Your task to perform on an android device: turn smart compose on in the gmail app Image 0: 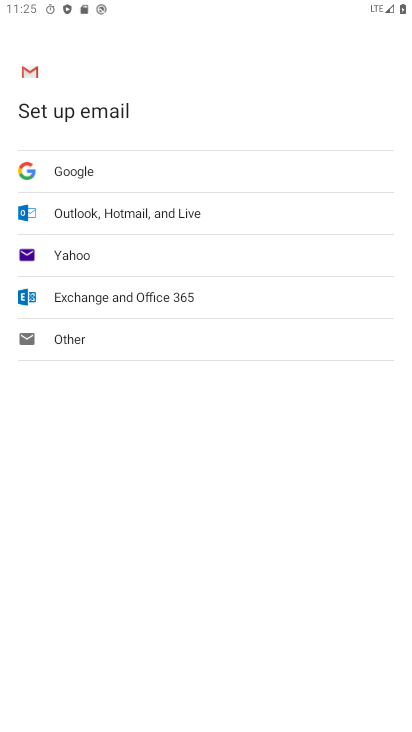
Step 0: press home button
Your task to perform on an android device: turn smart compose on in the gmail app Image 1: 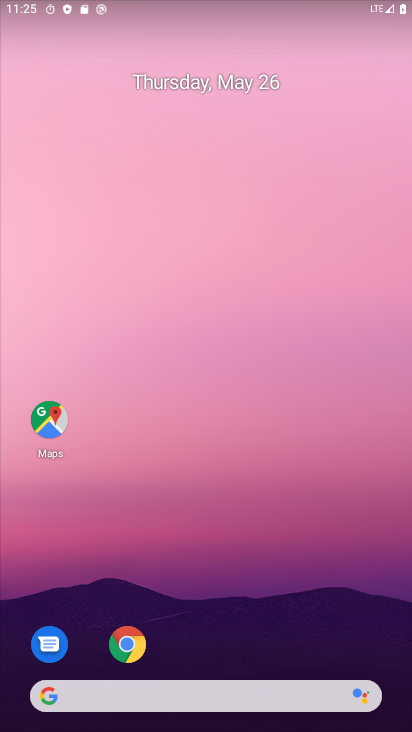
Step 1: drag from (134, 728) to (137, 67)
Your task to perform on an android device: turn smart compose on in the gmail app Image 2: 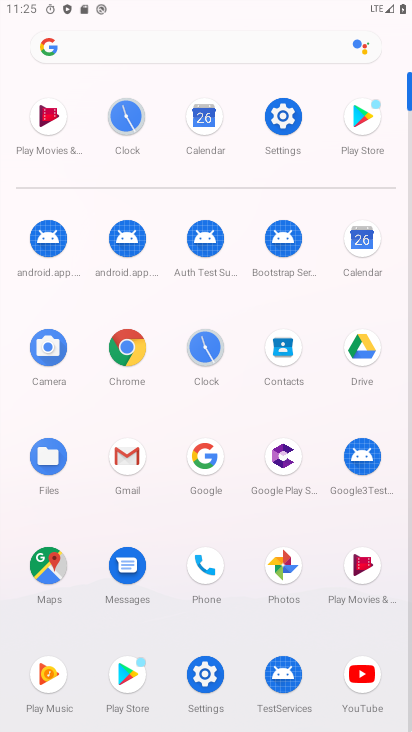
Step 2: click (129, 466)
Your task to perform on an android device: turn smart compose on in the gmail app Image 3: 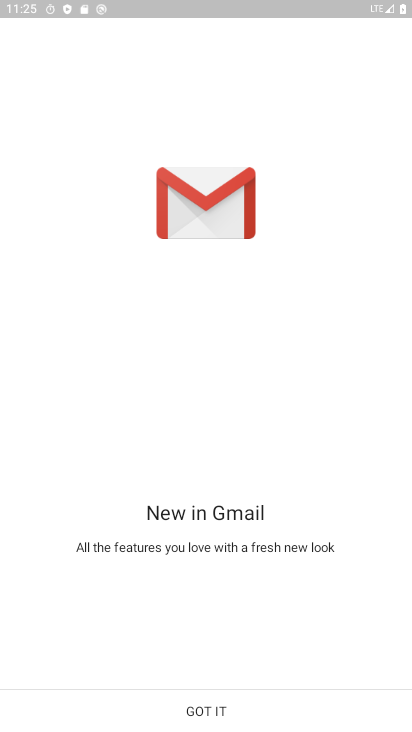
Step 3: click (203, 713)
Your task to perform on an android device: turn smart compose on in the gmail app Image 4: 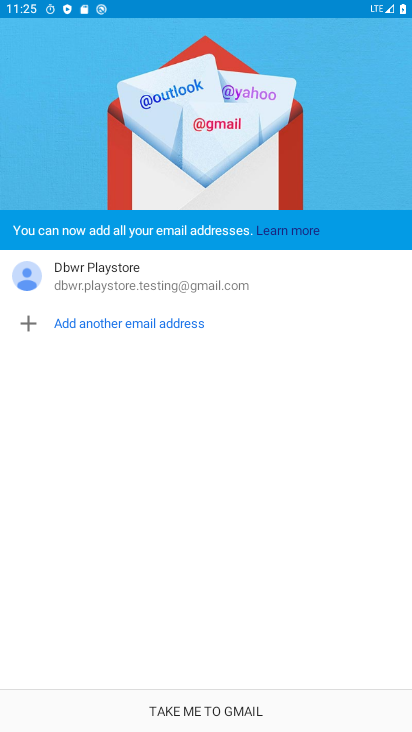
Step 4: click (207, 712)
Your task to perform on an android device: turn smart compose on in the gmail app Image 5: 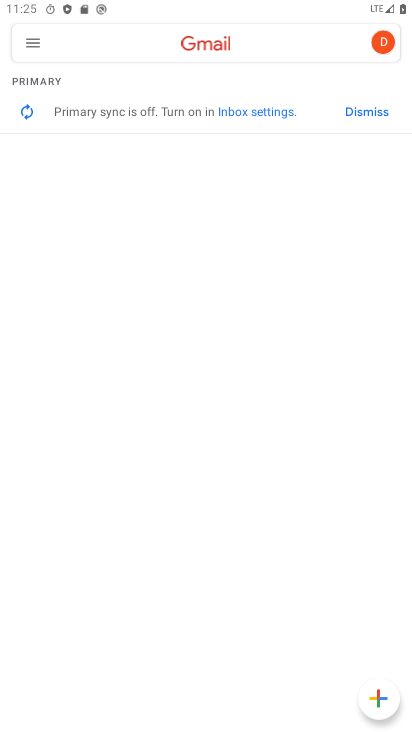
Step 5: click (26, 48)
Your task to perform on an android device: turn smart compose on in the gmail app Image 6: 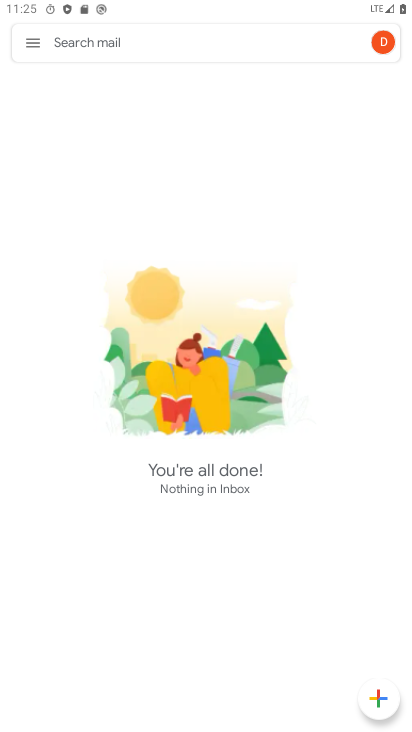
Step 6: click (33, 49)
Your task to perform on an android device: turn smart compose on in the gmail app Image 7: 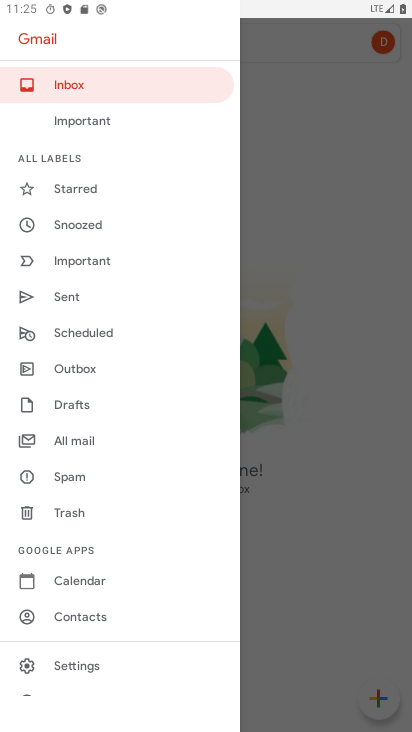
Step 7: click (64, 667)
Your task to perform on an android device: turn smart compose on in the gmail app Image 8: 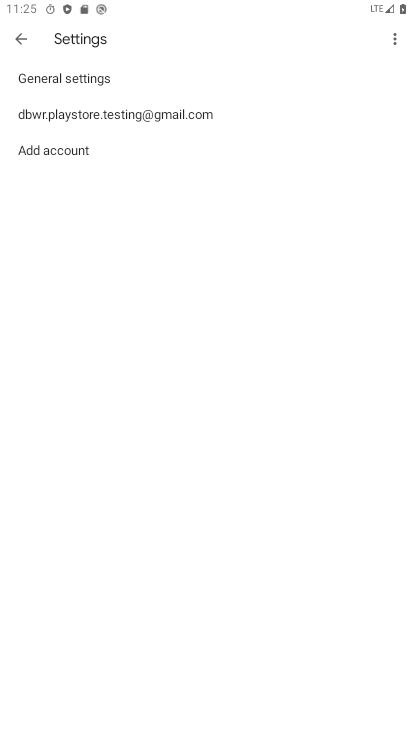
Step 8: click (96, 114)
Your task to perform on an android device: turn smart compose on in the gmail app Image 9: 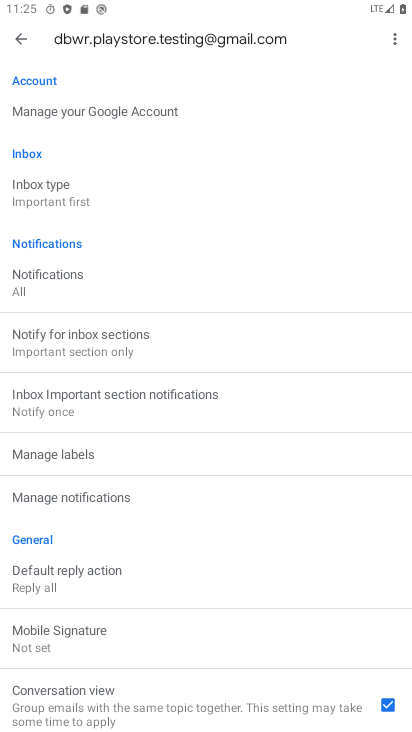
Step 9: task complete